Your task to perform on an android device: What's on the menu at Chipotle? Image 0: 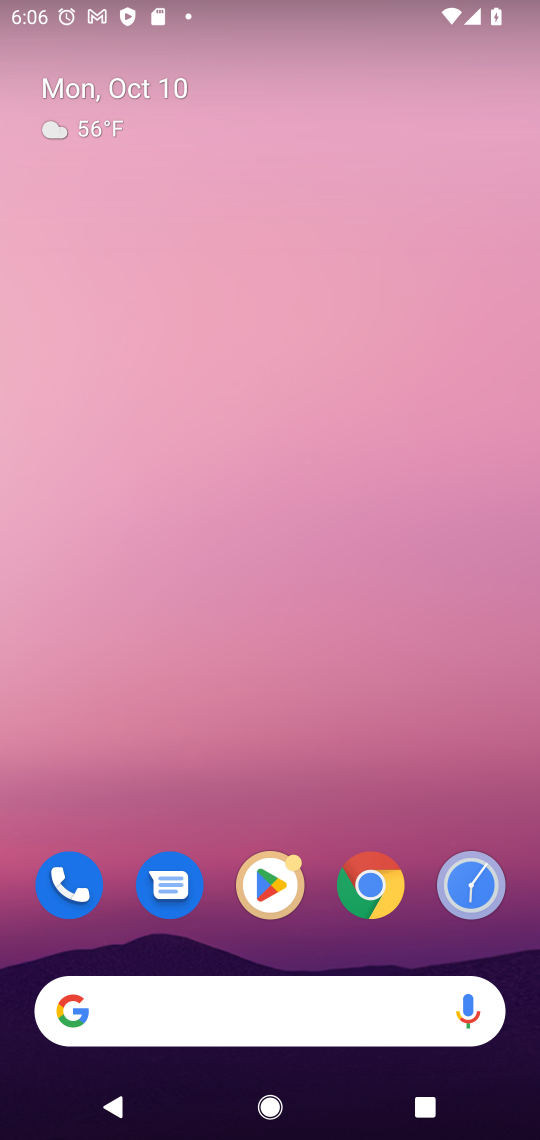
Step 0: click (321, 1017)
Your task to perform on an android device: What's on the menu at Chipotle? Image 1: 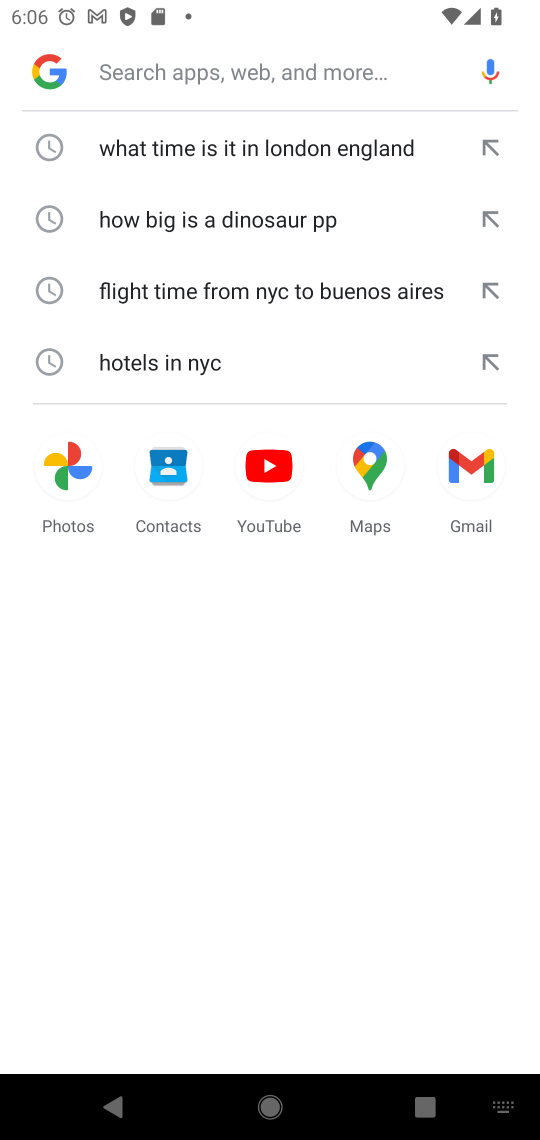
Step 1: type "What's on the menu at Chipotle?"
Your task to perform on an android device: What's on the menu at Chipotle? Image 2: 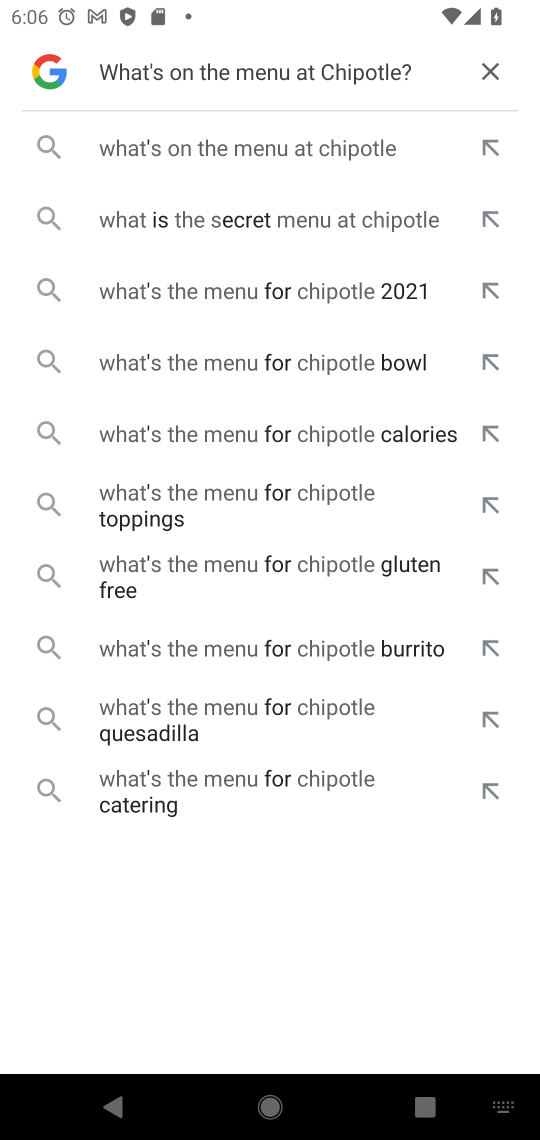
Step 2: click (231, 145)
Your task to perform on an android device: What's on the menu at Chipotle? Image 3: 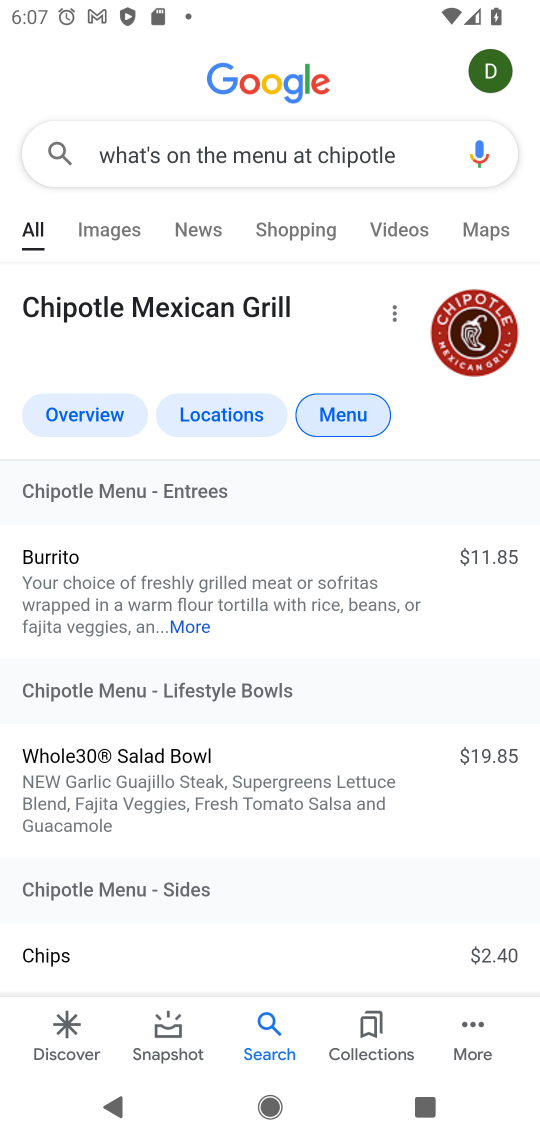
Step 3: task complete